Your task to perform on an android device: remove spam from my inbox in the gmail app Image 0: 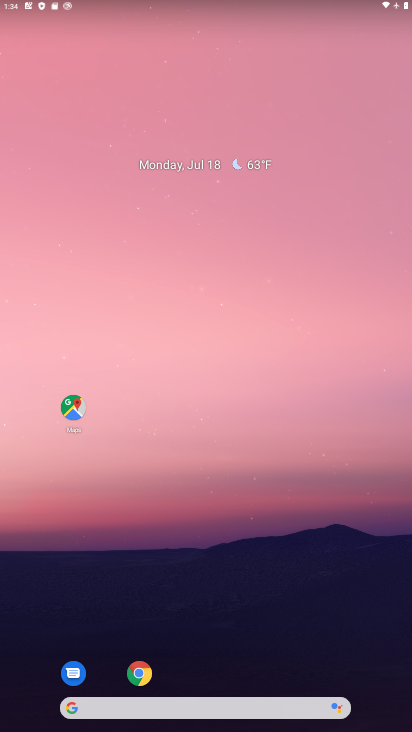
Step 0: drag from (261, 691) to (227, 162)
Your task to perform on an android device: remove spam from my inbox in the gmail app Image 1: 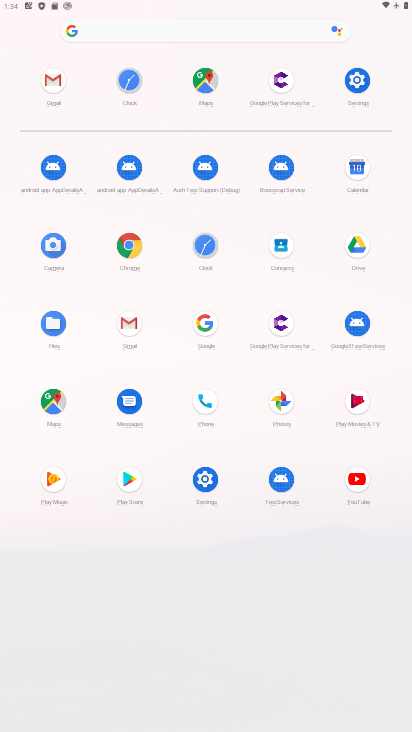
Step 1: click (126, 320)
Your task to perform on an android device: remove spam from my inbox in the gmail app Image 2: 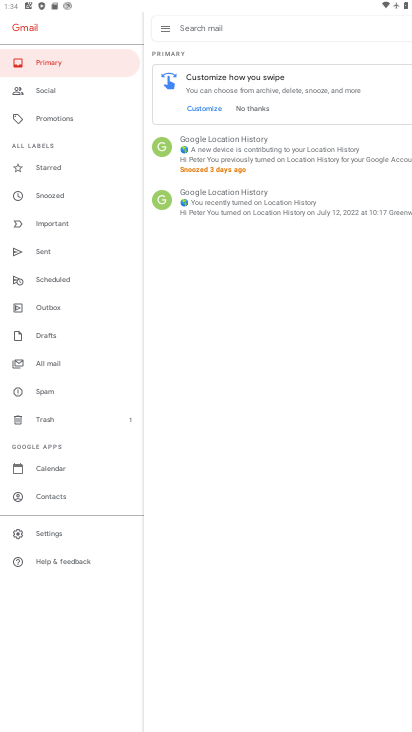
Step 2: click (61, 383)
Your task to perform on an android device: remove spam from my inbox in the gmail app Image 3: 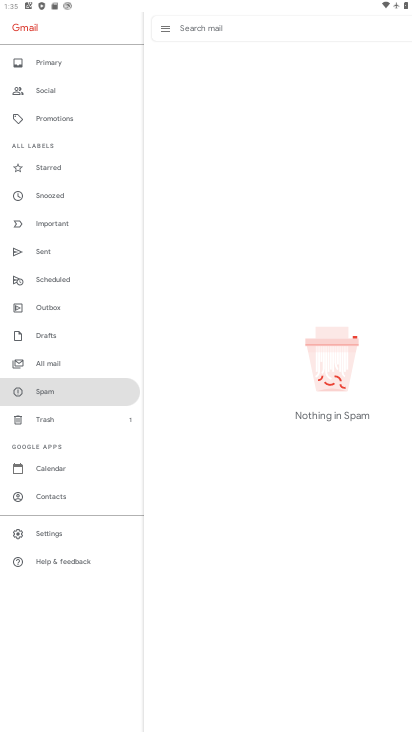
Step 3: task complete